Your task to perform on an android device: snooze an email in the gmail app Image 0: 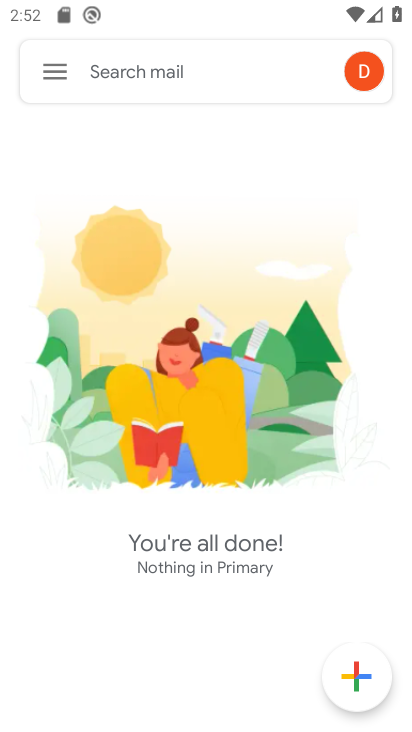
Step 0: click (51, 65)
Your task to perform on an android device: snooze an email in the gmail app Image 1: 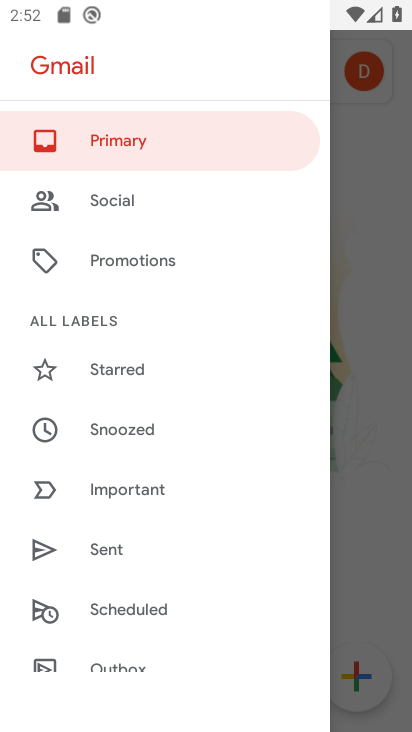
Step 1: drag from (160, 518) to (122, 180)
Your task to perform on an android device: snooze an email in the gmail app Image 2: 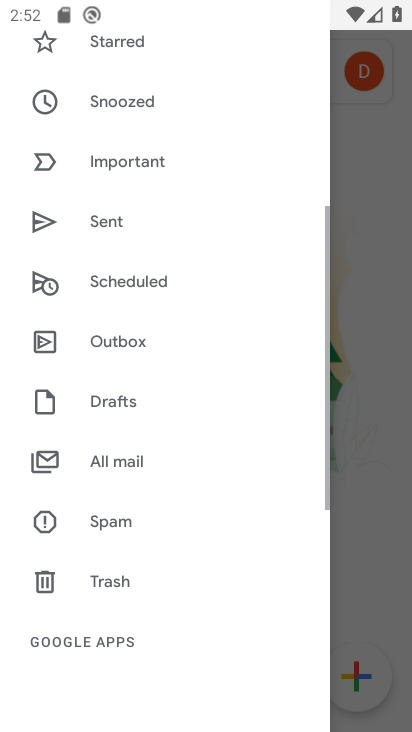
Step 2: drag from (171, 465) to (168, 194)
Your task to perform on an android device: snooze an email in the gmail app Image 3: 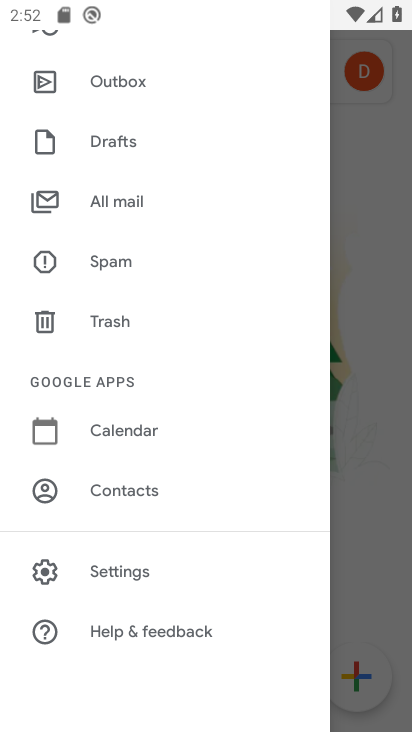
Step 3: click (124, 198)
Your task to perform on an android device: snooze an email in the gmail app Image 4: 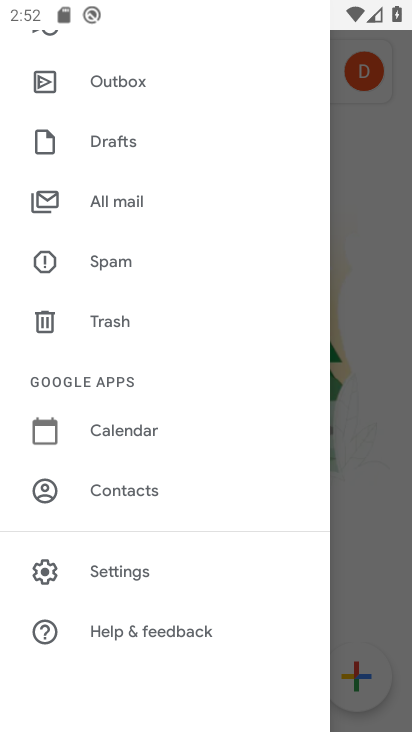
Step 4: click (123, 197)
Your task to perform on an android device: snooze an email in the gmail app Image 5: 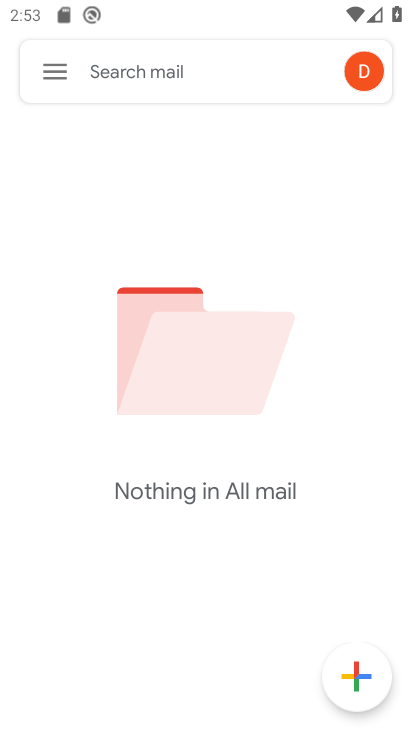
Step 5: task complete